Your task to perform on an android device: check google app version Image 0: 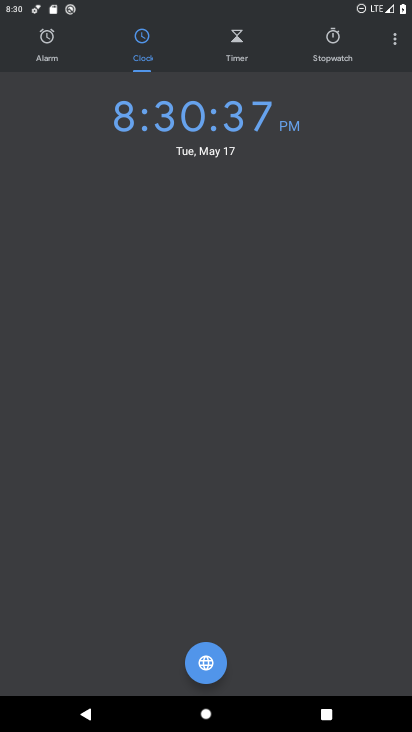
Step 0: press home button
Your task to perform on an android device: check google app version Image 1: 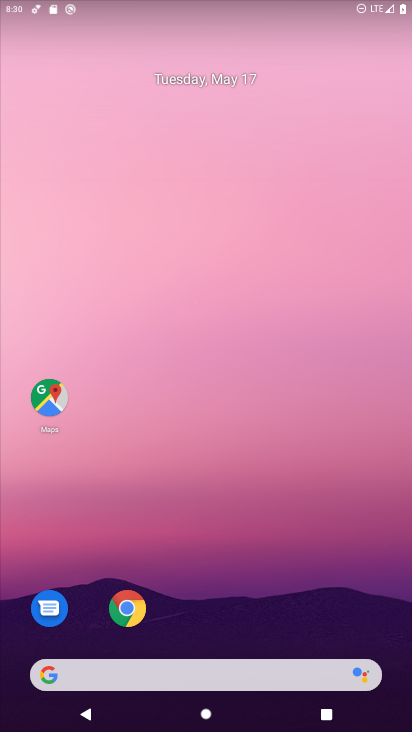
Step 1: click (166, 669)
Your task to perform on an android device: check google app version Image 2: 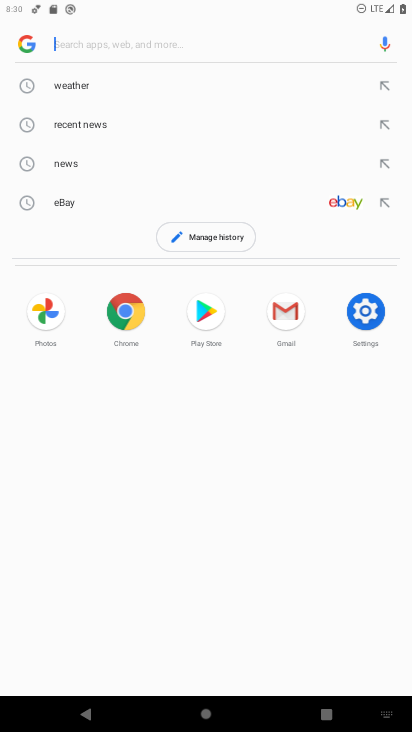
Step 2: click (33, 42)
Your task to perform on an android device: check google app version Image 3: 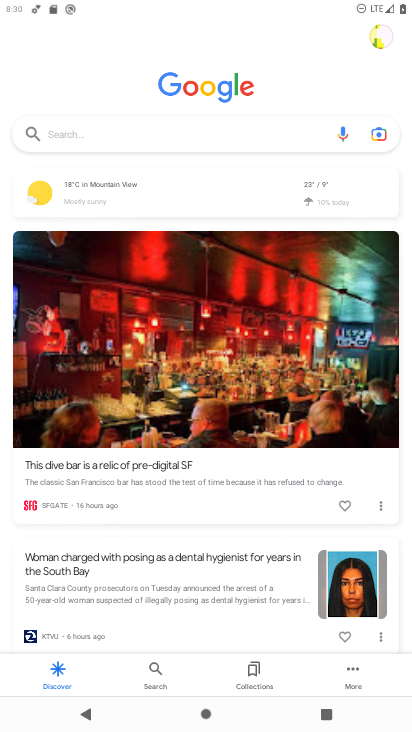
Step 3: drag from (362, 674) to (306, 674)
Your task to perform on an android device: check google app version Image 4: 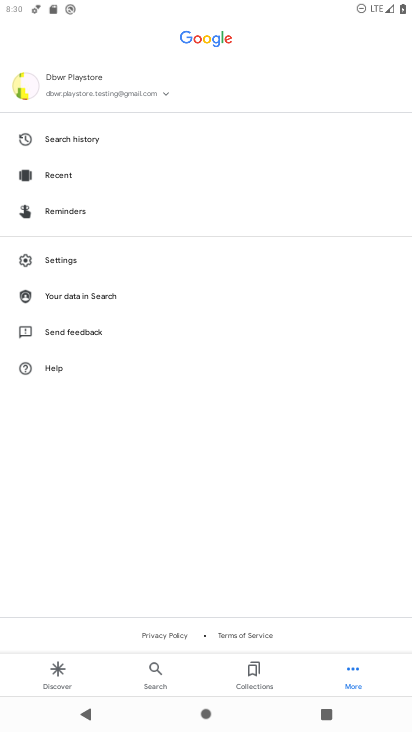
Step 4: click (74, 260)
Your task to perform on an android device: check google app version Image 5: 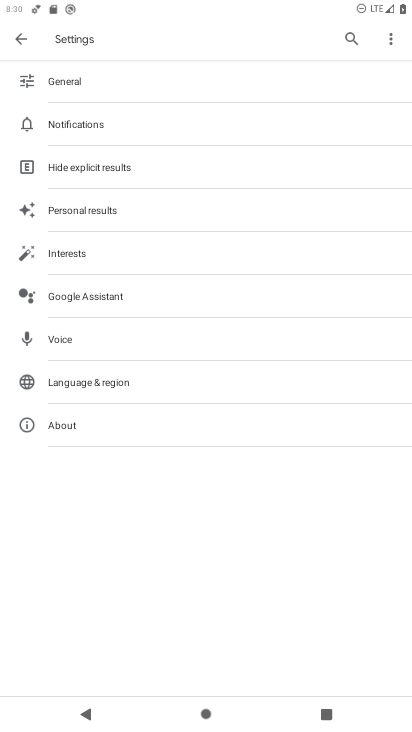
Step 5: click (82, 426)
Your task to perform on an android device: check google app version Image 6: 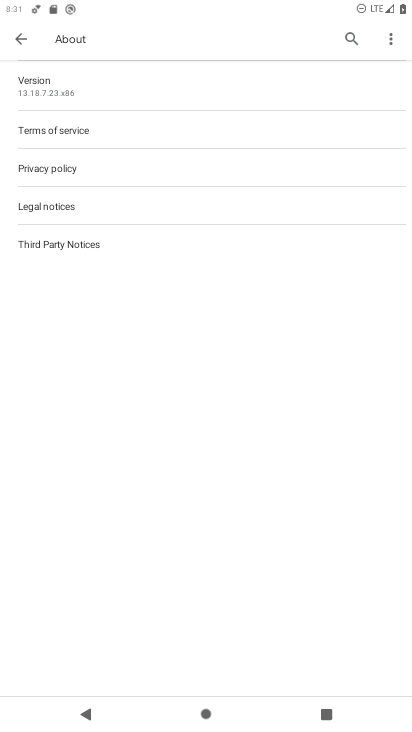
Step 6: task complete